Your task to perform on an android device: Do I have any events tomorrow? Image 0: 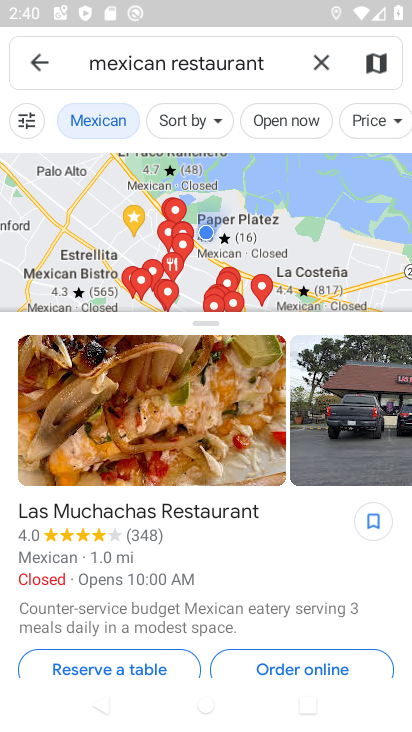
Step 0: press back button
Your task to perform on an android device: Do I have any events tomorrow? Image 1: 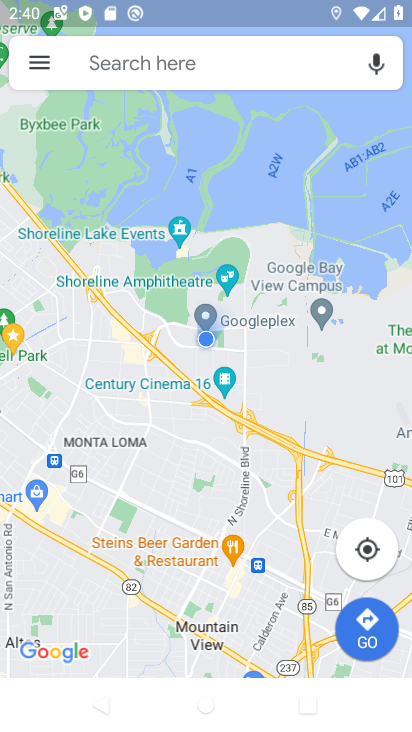
Step 1: press back button
Your task to perform on an android device: Do I have any events tomorrow? Image 2: 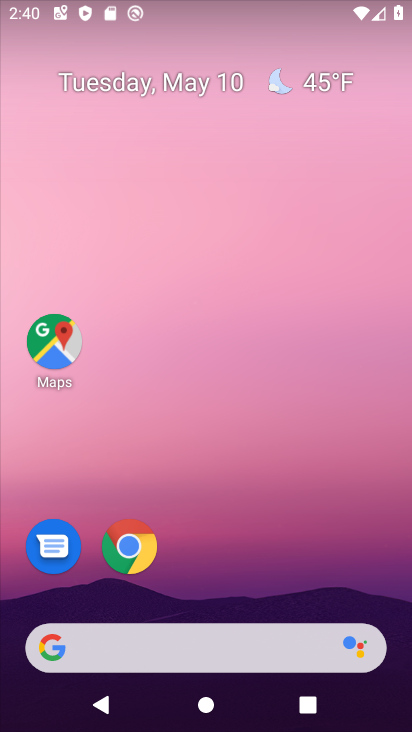
Step 2: drag from (283, 535) to (226, 25)
Your task to perform on an android device: Do I have any events tomorrow? Image 3: 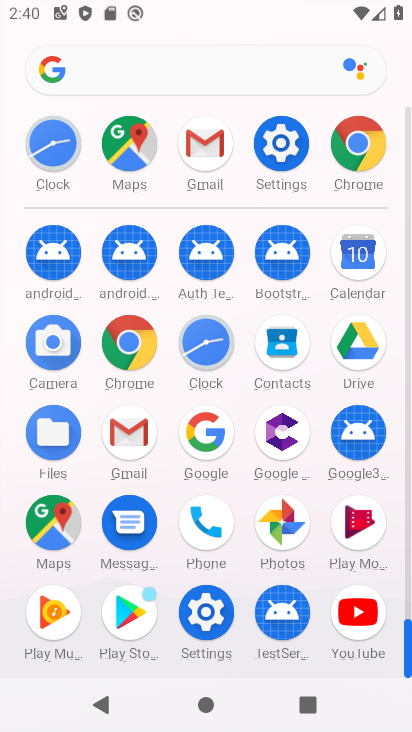
Step 3: drag from (0, 529) to (5, 214)
Your task to perform on an android device: Do I have any events tomorrow? Image 4: 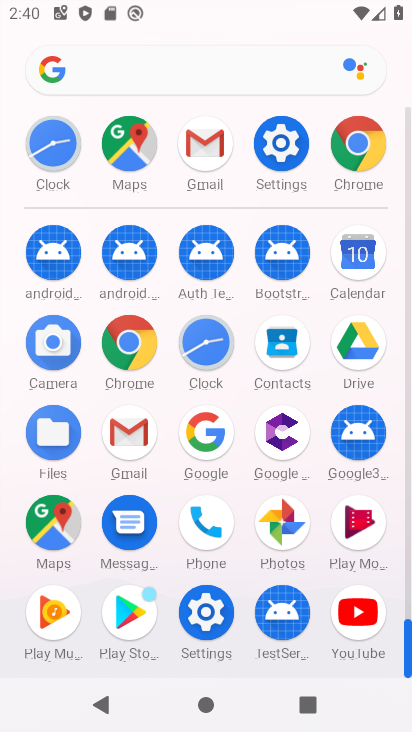
Step 4: click (358, 245)
Your task to perform on an android device: Do I have any events tomorrow? Image 5: 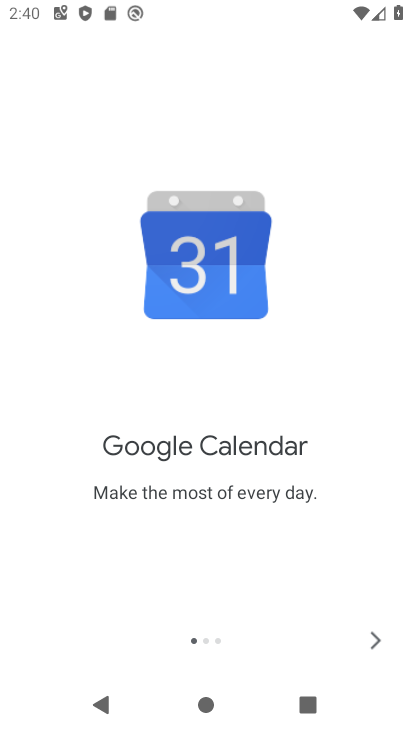
Step 5: click (373, 642)
Your task to perform on an android device: Do I have any events tomorrow? Image 6: 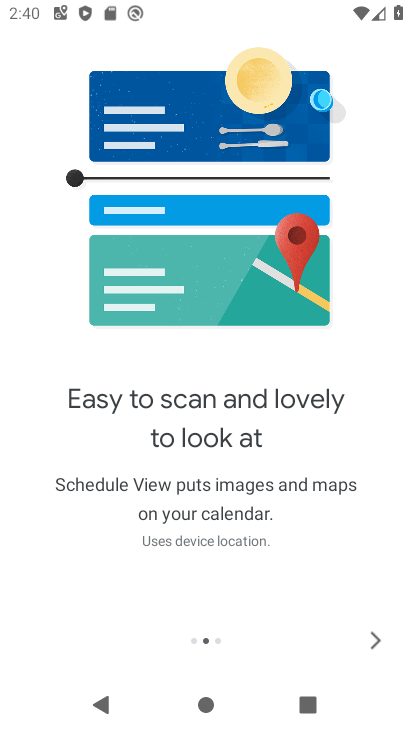
Step 6: click (373, 642)
Your task to perform on an android device: Do I have any events tomorrow? Image 7: 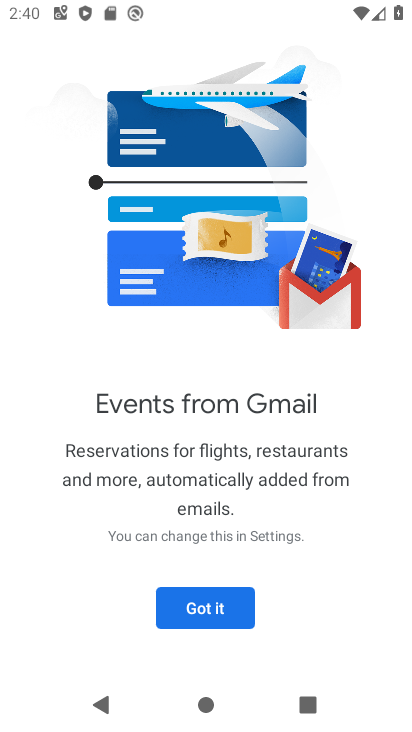
Step 7: click (213, 606)
Your task to perform on an android device: Do I have any events tomorrow? Image 8: 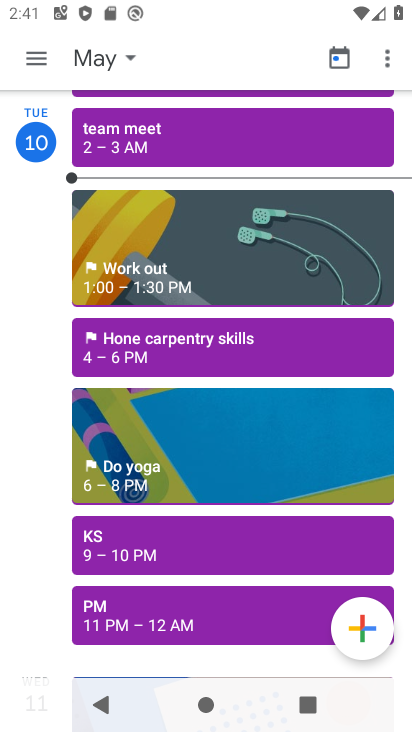
Step 8: drag from (375, 67) to (9, 72)
Your task to perform on an android device: Do I have any events tomorrow? Image 9: 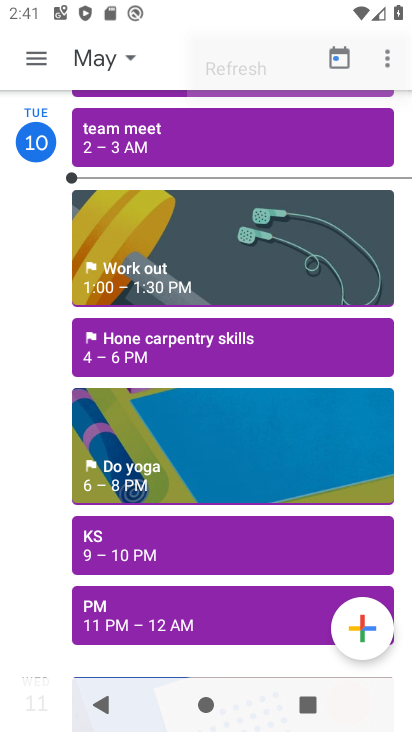
Step 9: click (136, 75)
Your task to perform on an android device: Do I have any events tomorrow? Image 10: 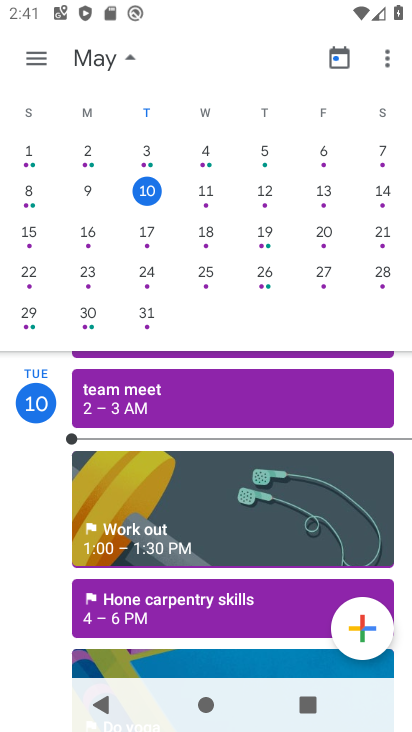
Step 10: click (362, 137)
Your task to perform on an android device: Do I have any events tomorrow? Image 11: 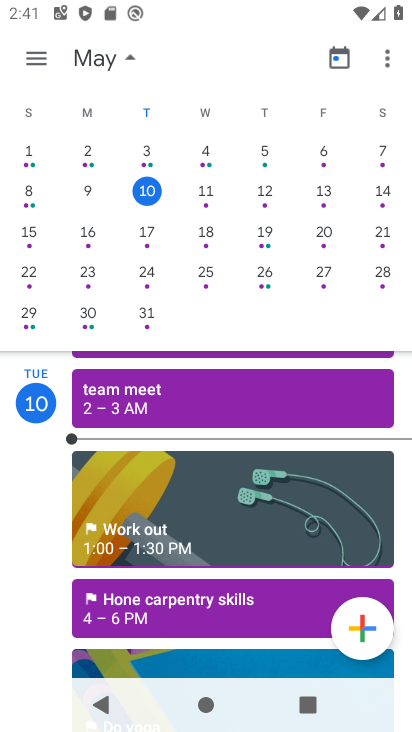
Step 11: click (197, 190)
Your task to perform on an android device: Do I have any events tomorrow? Image 12: 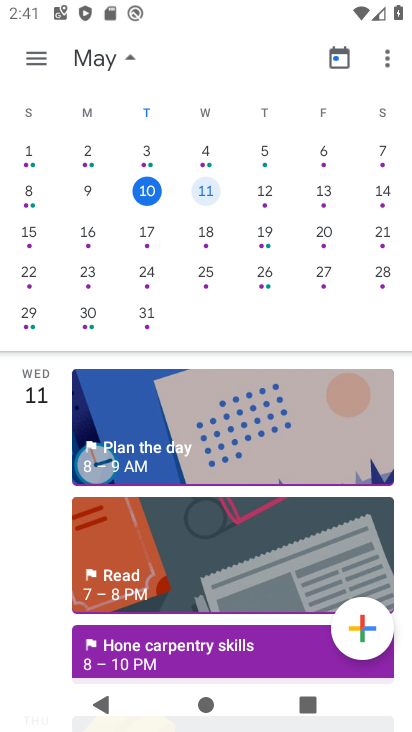
Step 12: task complete